Your task to perform on an android device: What's on my calendar tomorrow? Image 0: 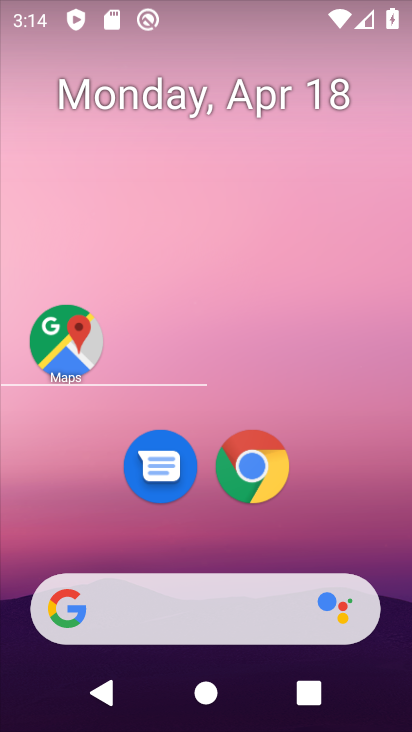
Step 0: drag from (368, 534) to (363, 257)
Your task to perform on an android device: What's on my calendar tomorrow? Image 1: 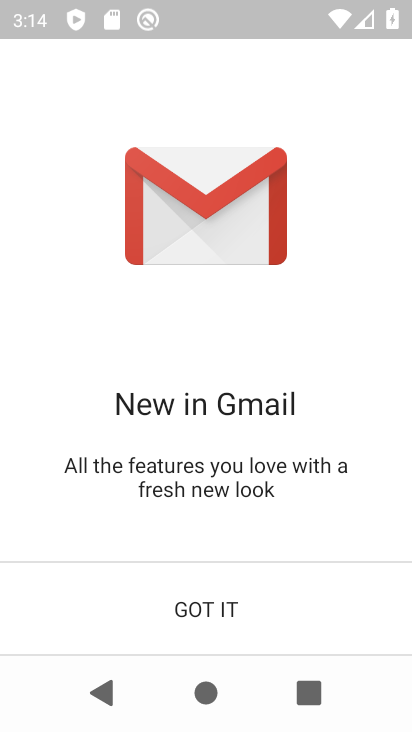
Step 1: click (246, 627)
Your task to perform on an android device: What's on my calendar tomorrow? Image 2: 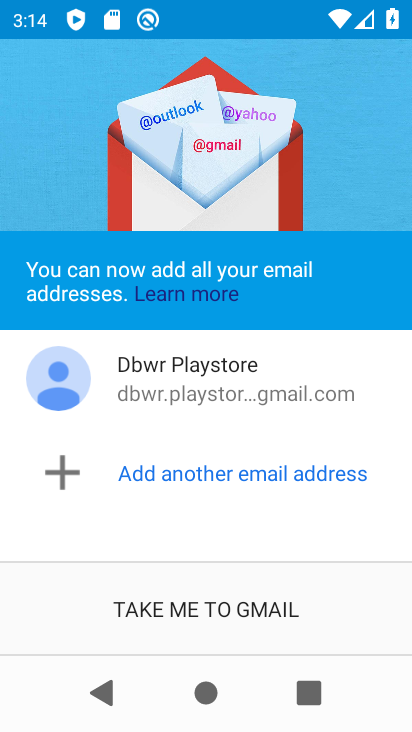
Step 2: press back button
Your task to perform on an android device: What's on my calendar tomorrow? Image 3: 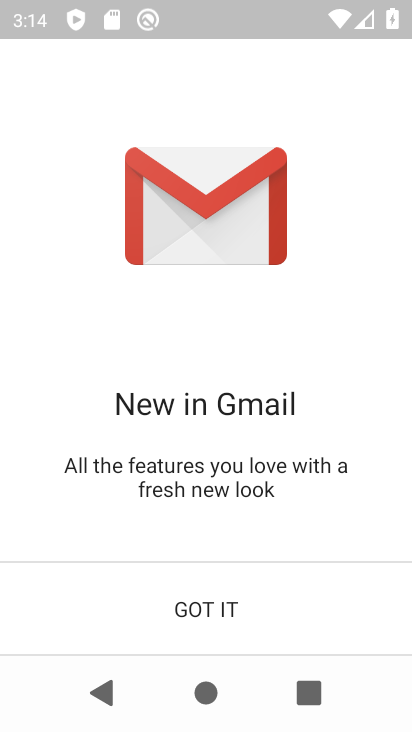
Step 3: press back button
Your task to perform on an android device: What's on my calendar tomorrow? Image 4: 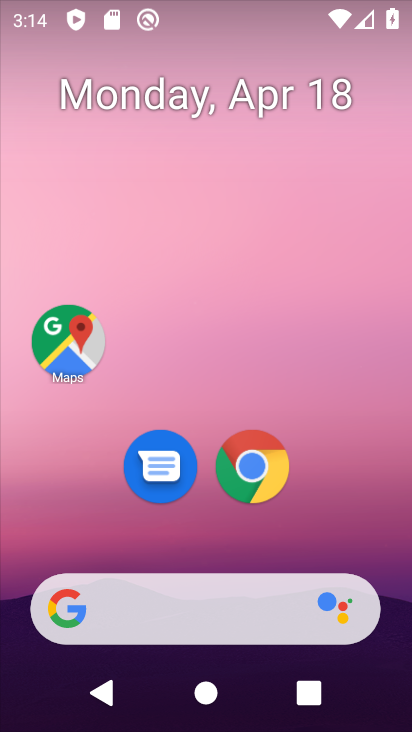
Step 4: drag from (339, 526) to (313, 213)
Your task to perform on an android device: What's on my calendar tomorrow? Image 5: 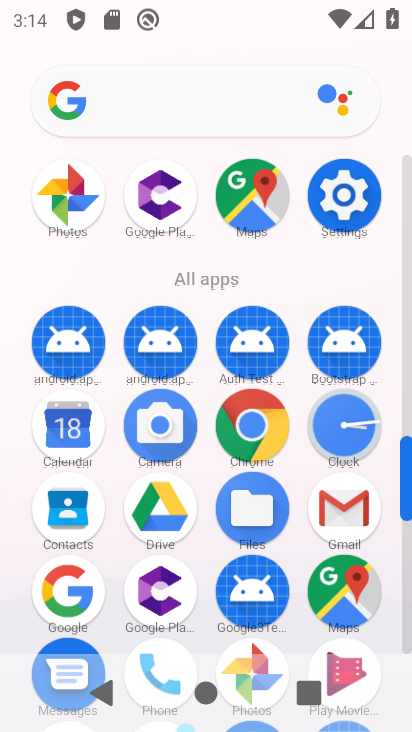
Step 5: click (82, 429)
Your task to perform on an android device: What's on my calendar tomorrow? Image 6: 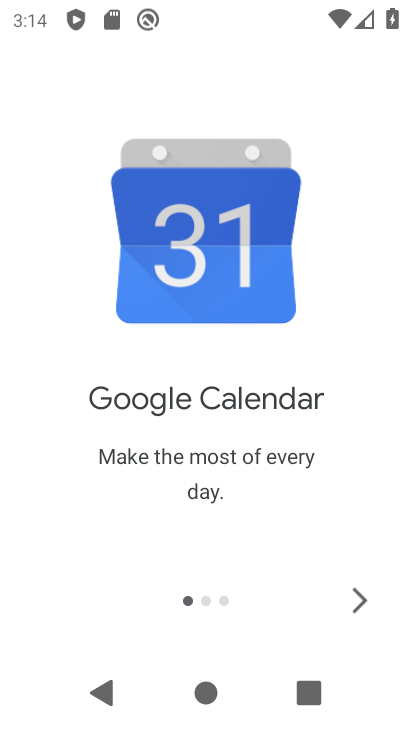
Step 6: click (371, 622)
Your task to perform on an android device: What's on my calendar tomorrow? Image 7: 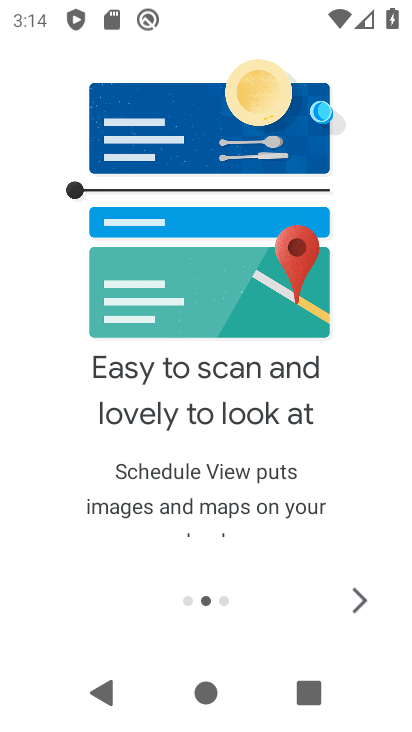
Step 7: click (371, 622)
Your task to perform on an android device: What's on my calendar tomorrow? Image 8: 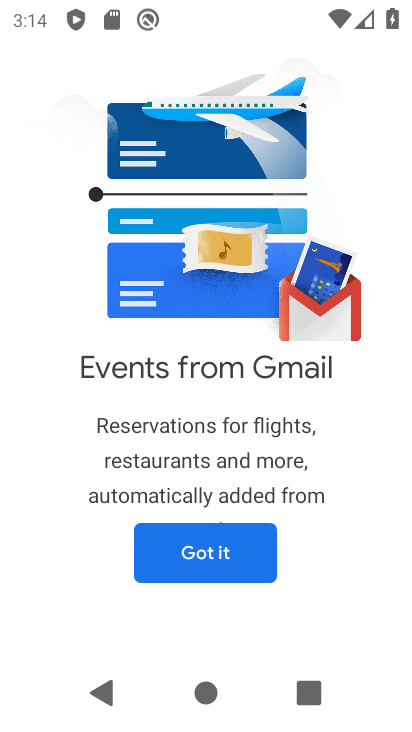
Step 8: click (233, 569)
Your task to perform on an android device: What's on my calendar tomorrow? Image 9: 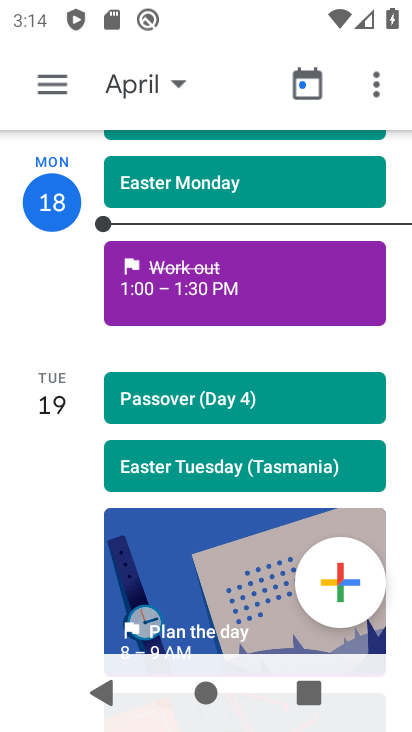
Step 9: press back button
Your task to perform on an android device: What's on my calendar tomorrow? Image 10: 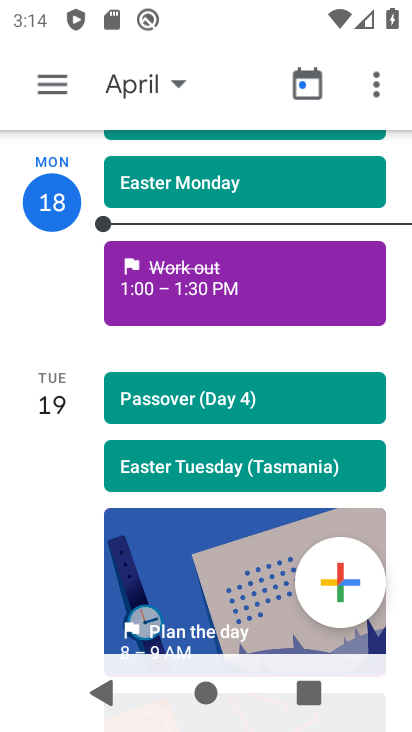
Step 10: press back button
Your task to perform on an android device: What's on my calendar tomorrow? Image 11: 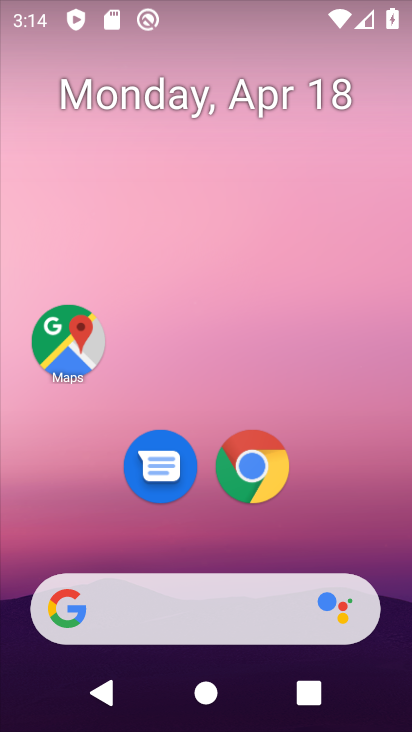
Step 11: drag from (306, 555) to (318, 177)
Your task to perform on an android device: What's on my calendar tomorrow? Image 12: 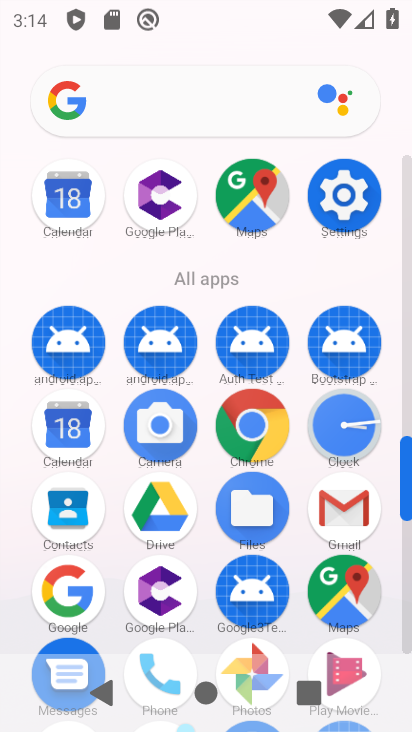
Step 12: click (80, 452)
Your task to perform on an android device: What's on my calendar tomorrow? Image 13: 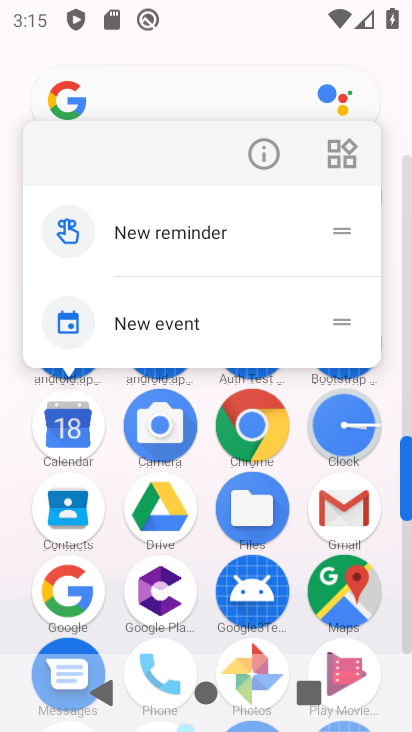
Step 13: click (74, 450)
Your task to perform on an android device: What's on my calendar tomorrow? Image 14: 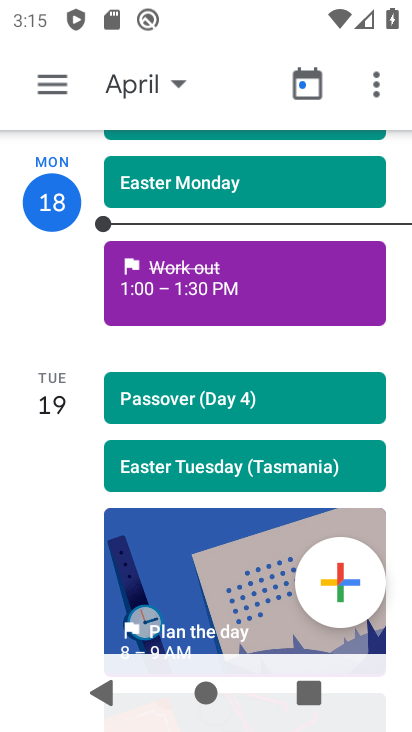
Step 14: task complete